Your task to perform on an android device: change alarm snooze length Image 0: 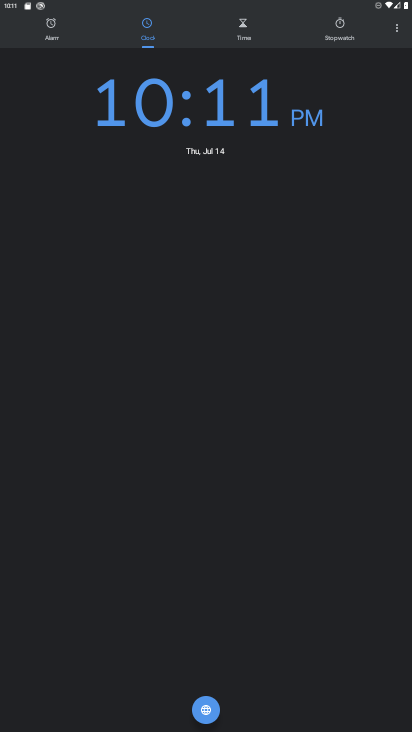
Step 0: click (393, 34)
Your task to perform on an android device: change alarm snooze length Image 1: 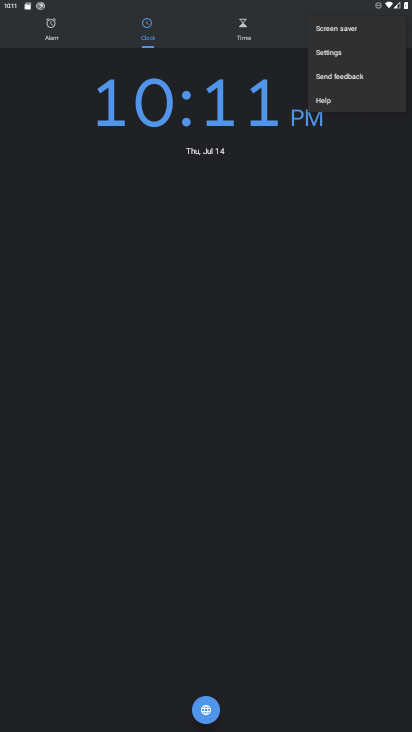
Step 1: click (327, 59)
Your task to perform on an android device: change alarm snooze length Image 2: 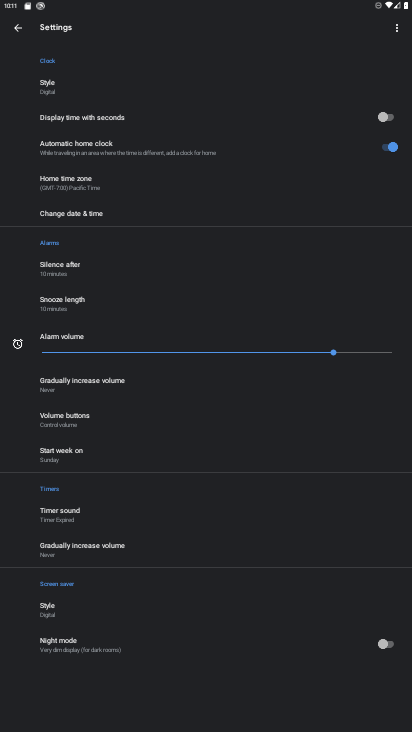
Step 2: click (79, 301)
Your task to perform on an android device: change alarm snooze length Image 3: 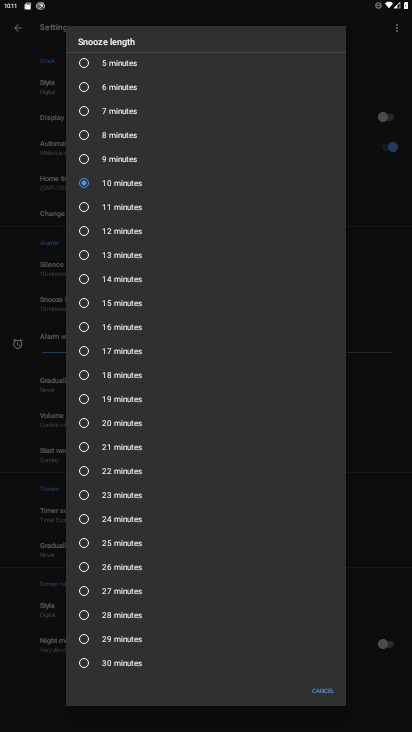
Step 3: click (86, 210)
Your task to perform on an android device: change alarm snooze length Image 4: 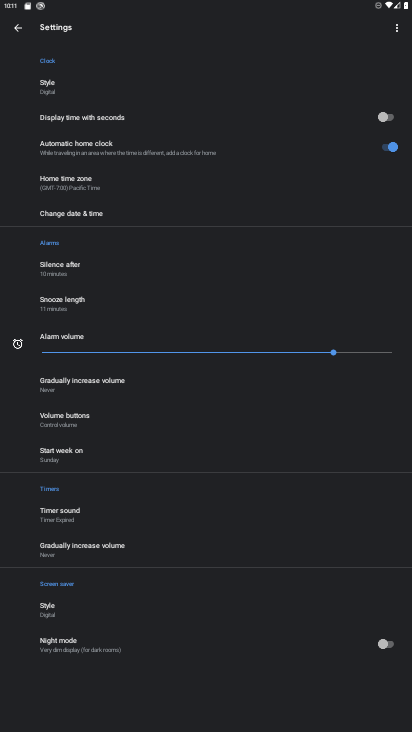
Step 4: task complete